Your task to perform on an android device: Go to Google Image 0: 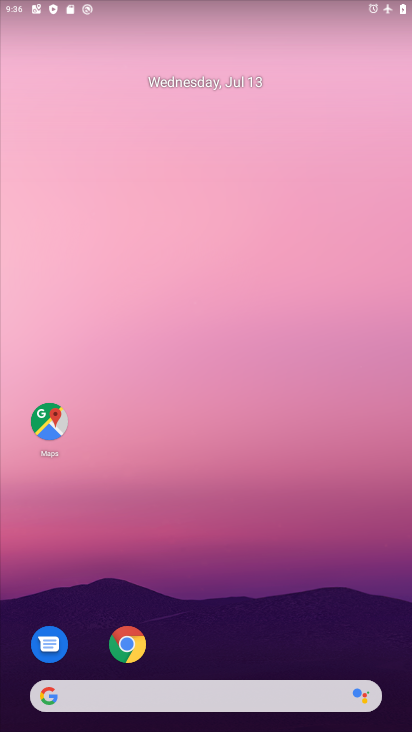
Step 0: drag from (217, 729) to (229, 86)
Your task to perform on an android device: Go to Google Image 1: 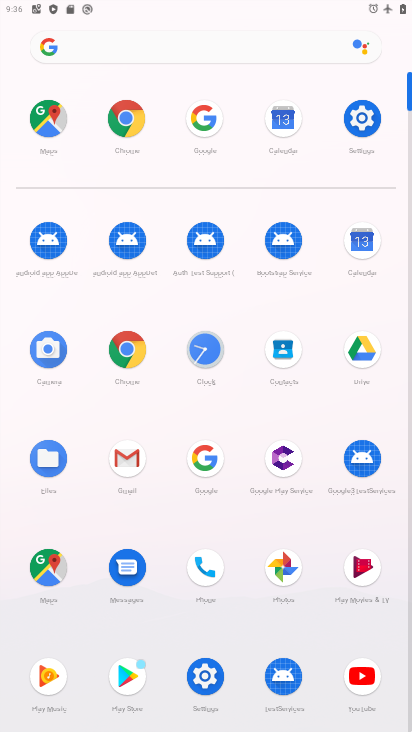
Step 1: click (204, 117)
Your task to perform on an android device: Go to Google Image 2: 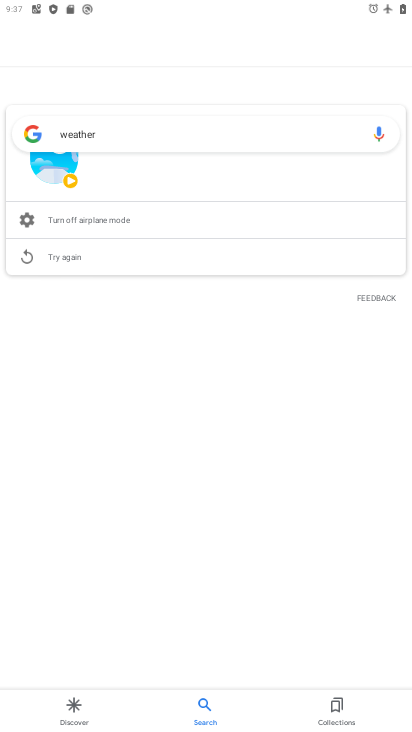
Step 2: task complete